Your task to perform on an android device: change the clock display to digital Image 0: 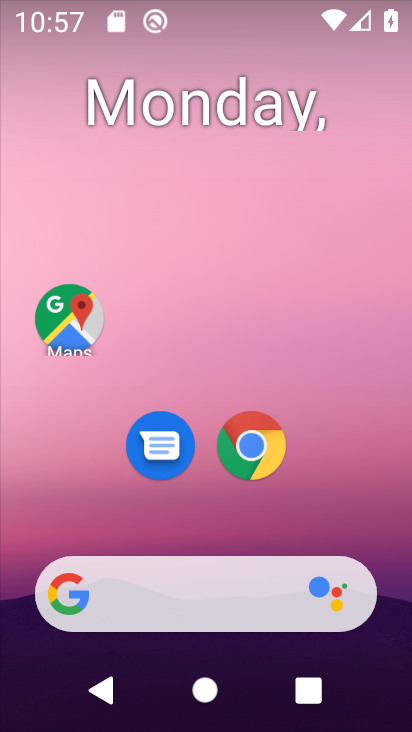
Step 0: drag from (204, 555) to (284, 125)
Your task to perform on an android device: change the clock display to digital Image 1: 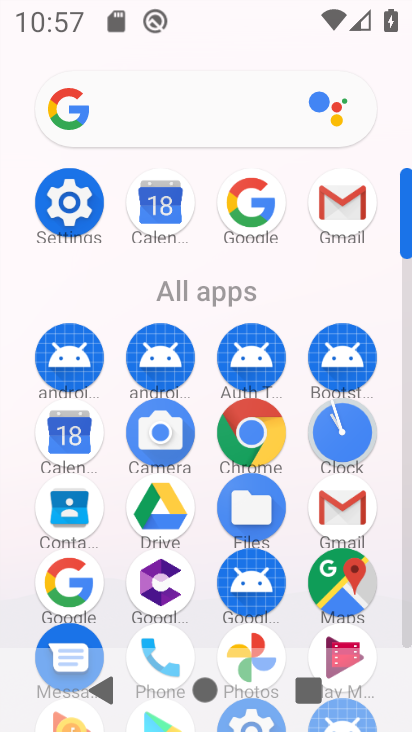
Step 1: click (327, 436)
Your task to perform on an android device: change the clock display to digital Image 2: 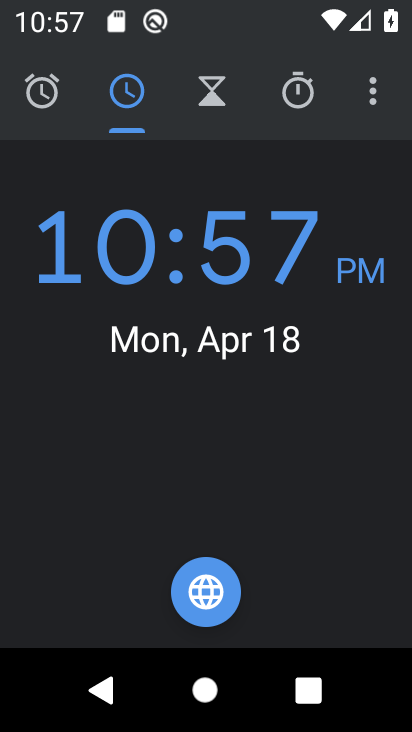
Step 2: click (373, 75)
Your task to perform on an android device: change the clock display to digital Image 3: 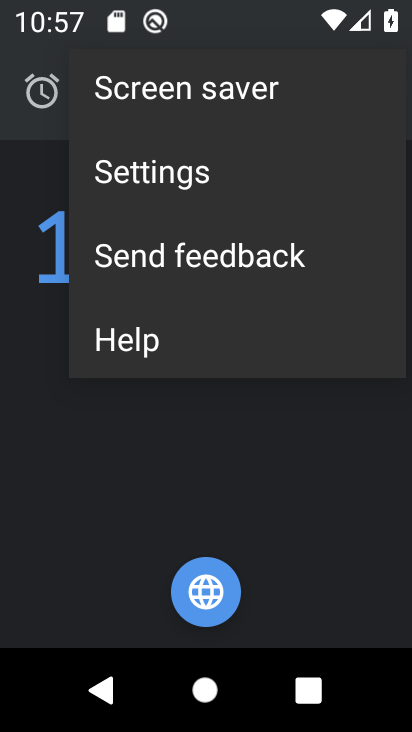
Step 3: click (373, 95)
Your task to perform on an android device: change the clock display to digital Image 4: 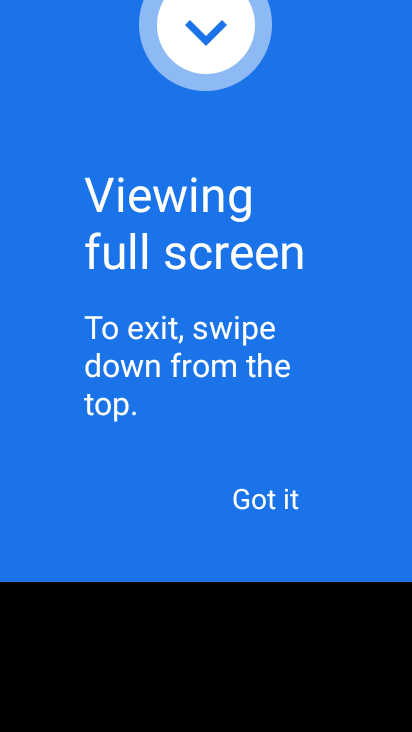
Step 4: click (270, 498)
Your task to perform on an android device: change the clock display to digital Image 5: 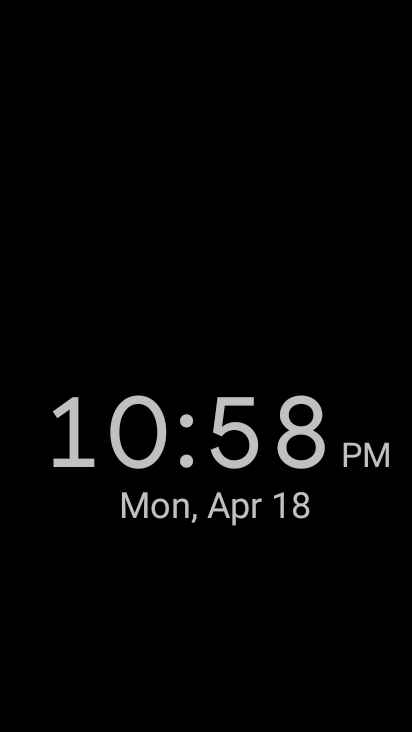
Step 5: drag from (387, 8) to (274, 220)
Your task to perform on an android device: change the clock display to digital Image 6: 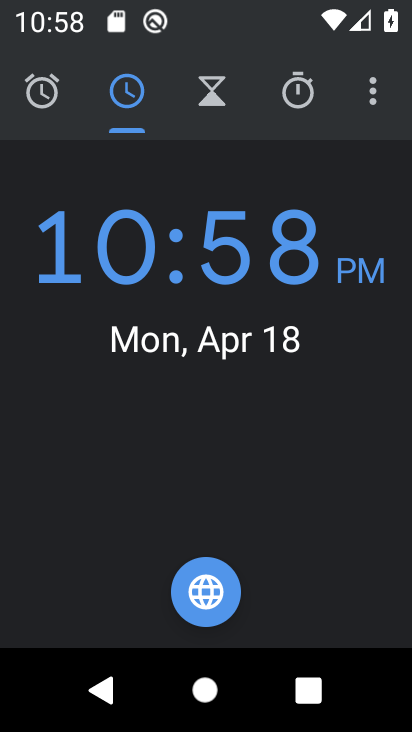
Step 6: click (370, 101)
Your task to perform on an android device: change the clock display to digital Image 7: 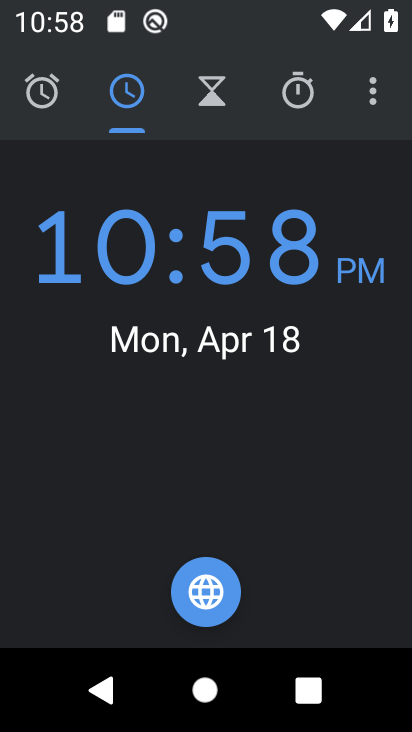
Step 7: click (384, 86)
Your task to perform on an android device: change the clock display to digital Image 8: 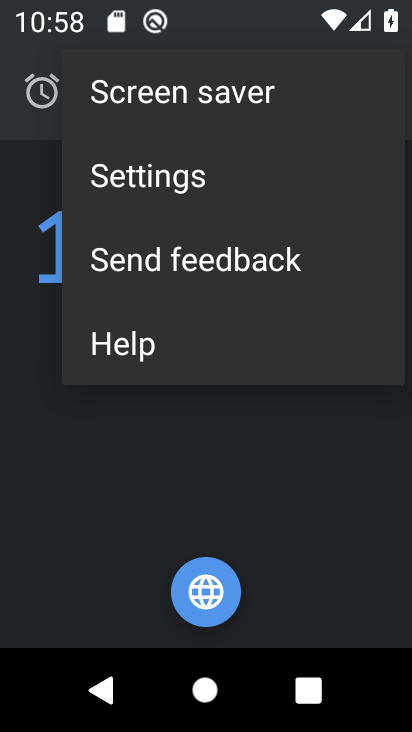
Step 8: click (133, 170)
Your task to perform on an android device: change the clock display to digital Image 9: 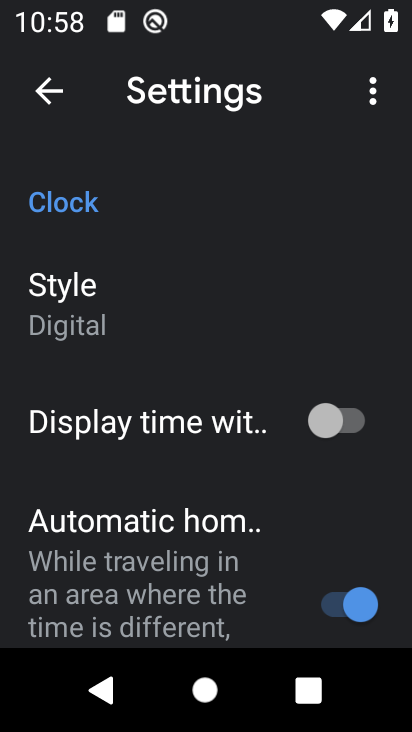
Step 9: click (80, 321)
Your task to perform on an android device: change the clock display to digital Image 10: 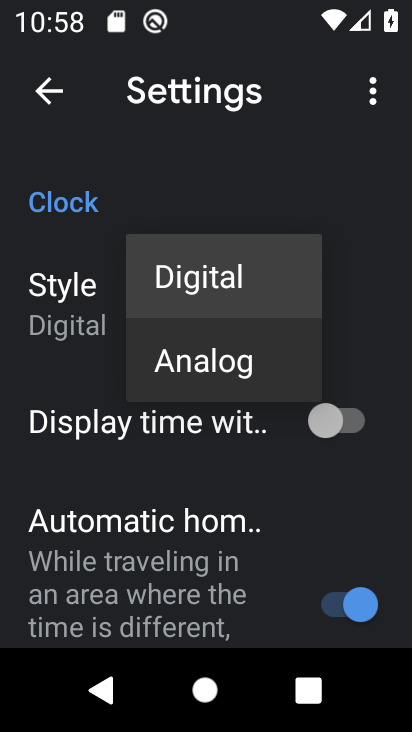
Step 10: task complete